Your task to perform on an android device: Open the map Image 0: 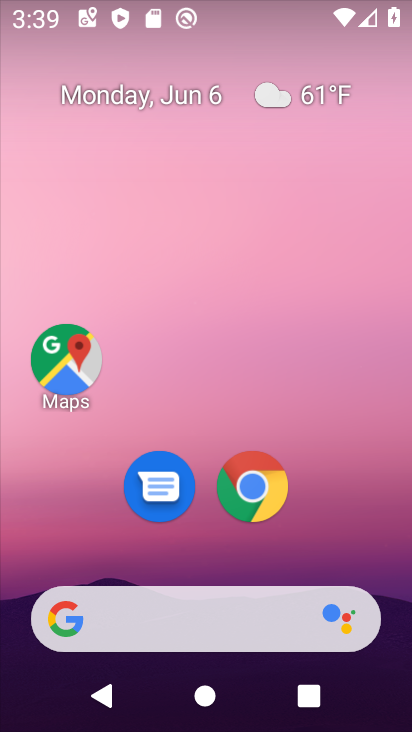
Step 0: click (61, 360)
Your task to perform on an android device: Open the map Image 1: 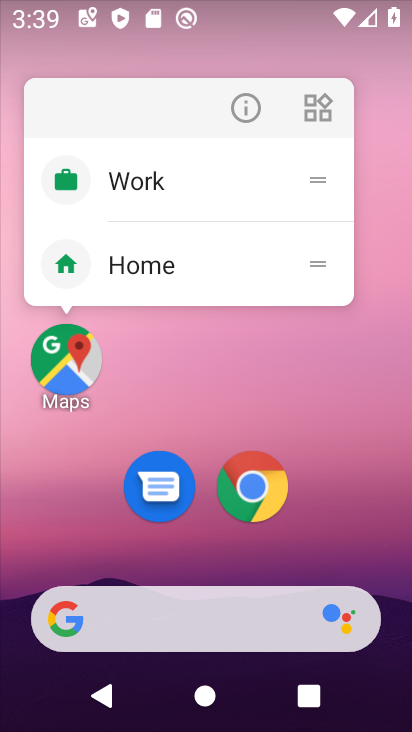
Step 1: click (77, 355)
Your task to perform on an android device: Open the map Image 2: 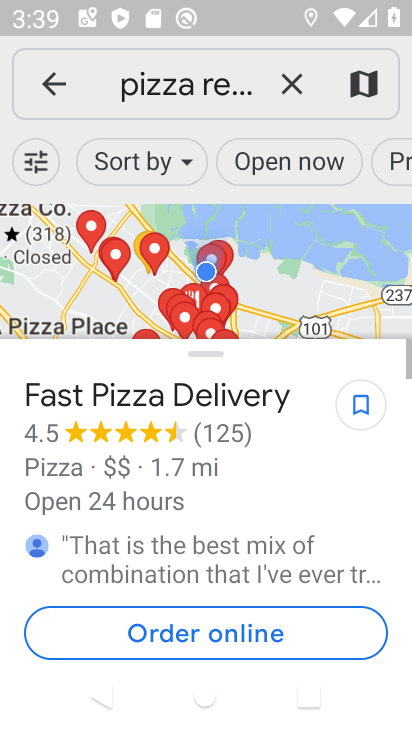
Step 2: task complete